Your task to perform on an android device: set the timer Image 0: 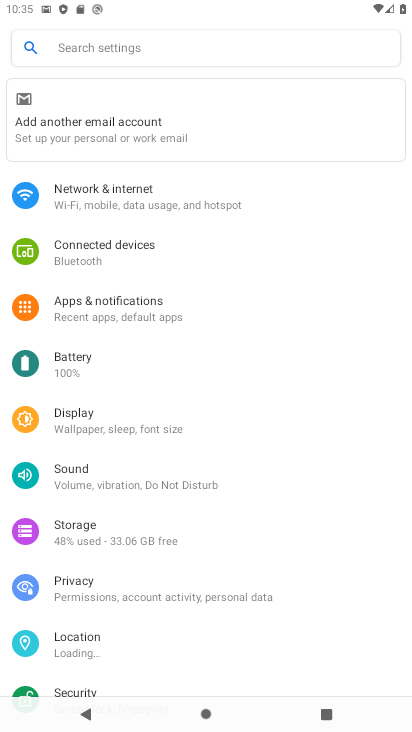
Step 0: press home button
Your task to perform on an android device: set the timer Image 1: 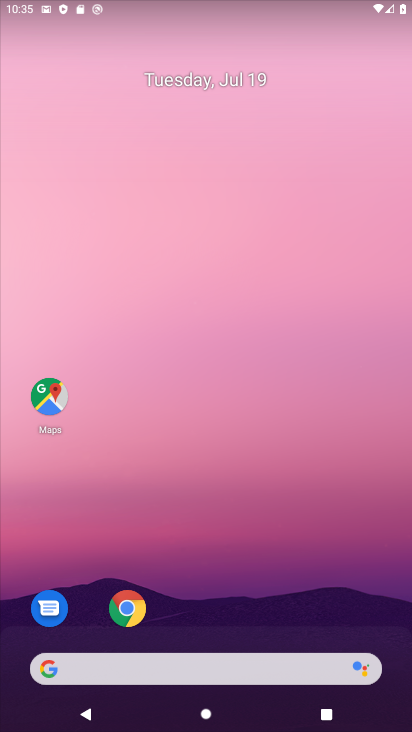
Step 1: drag from (260, 595) to (285, 84)
Your task to perform on an android device: set the timer Image 2: 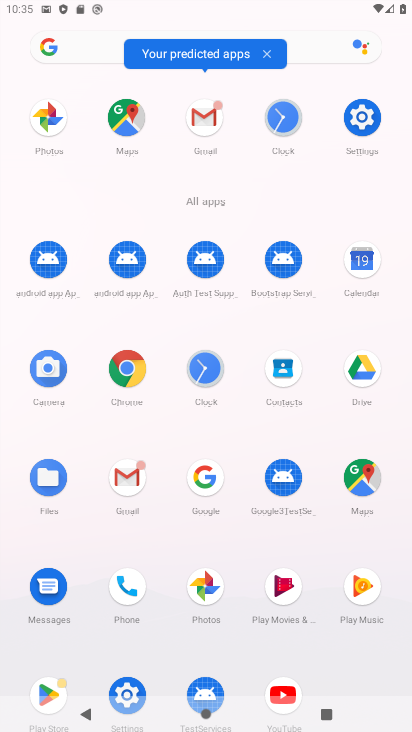
Step 2: click (207, 362)
Your task to perform on an android device: set the timer Image 3: 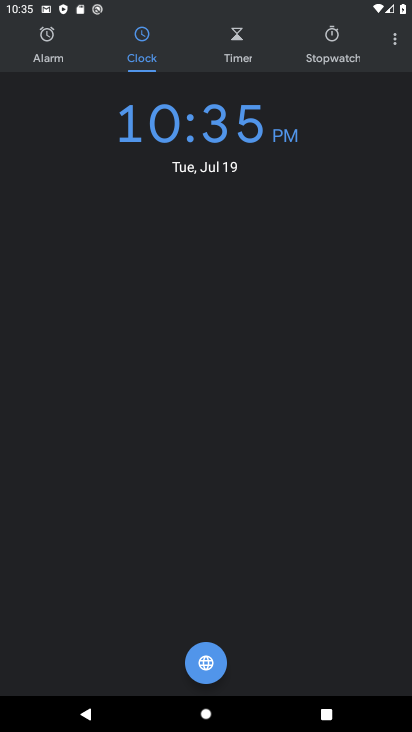
Step 3: click (240, 43)
Your task to perform on an android device: set the timer Image 4: 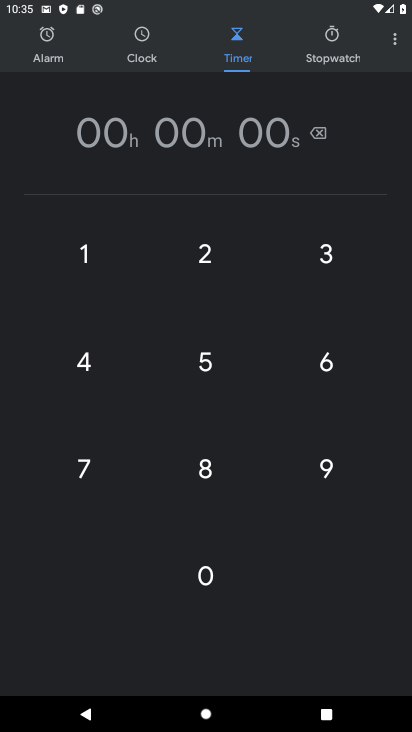
Step 4: click (186, 470)
Your task to perform on an android device: set the timer Image 5: 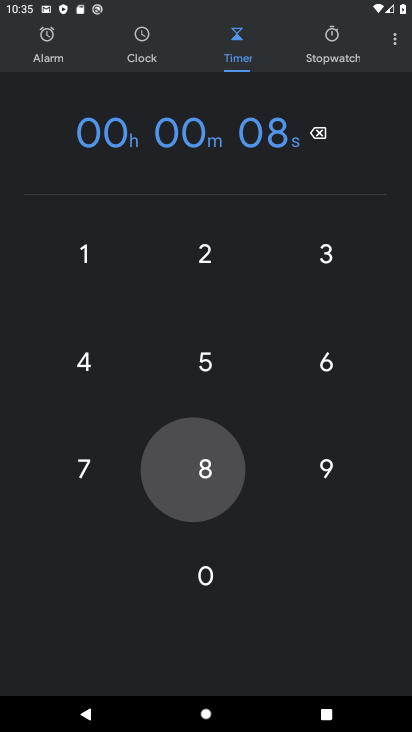
Step 5: click (186, 470)
Your task to perform on an android device: set the timer Image 6: 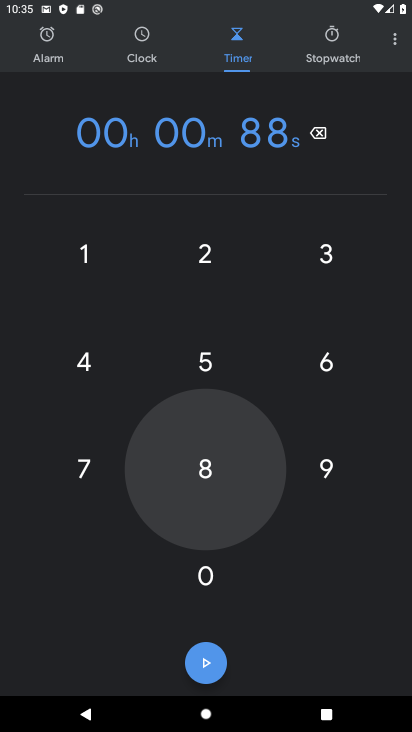
Step 6: click (186, 470)
Your task to perform on an android device: set the timer Image 7: 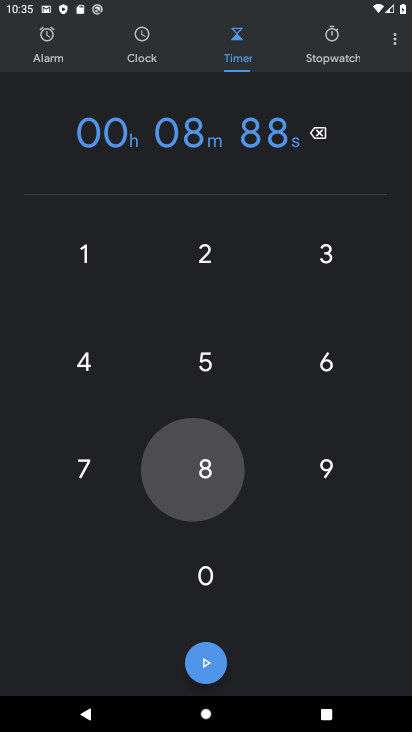
Step 7: click (186, 470)
Your task to perform on an android device: set the timer Image 8: 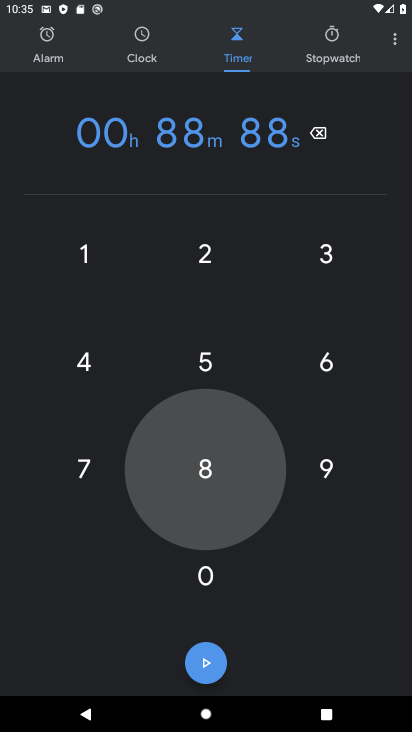
Step 8: click (186, 470)
Your task to perform on an android device: set the timer Image 9: 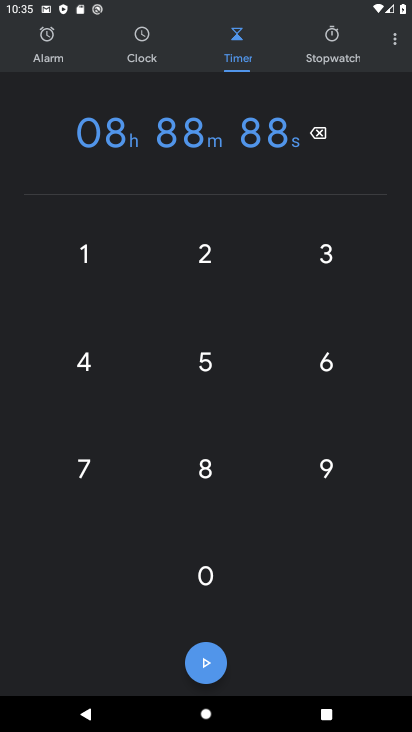
Step 9: click (186, 470)
Your task to perform on an android device: set the timer Image 10: 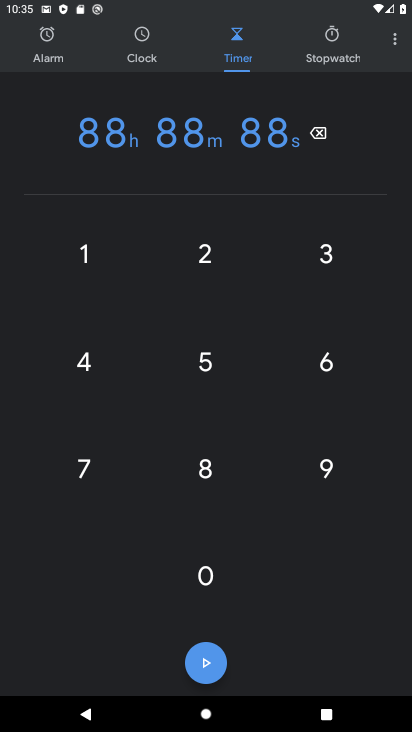
Step 10: click (203, 678)
Your task to perform on an android device: set the timer Image 11: 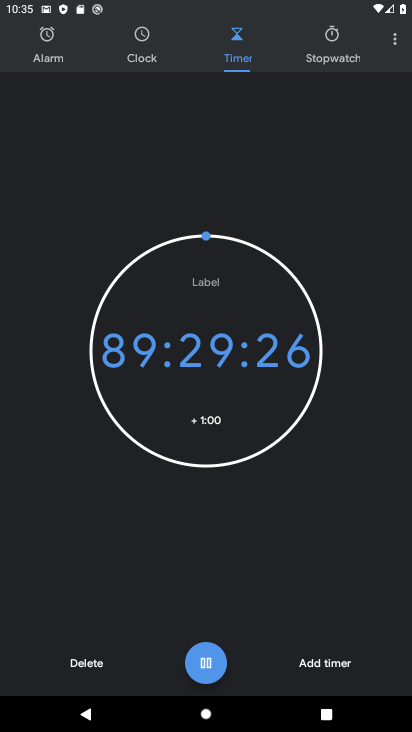
Step 11: task complete